Your task to perform on an android device: open the mobile data screen to see how much data has been used Image 0: 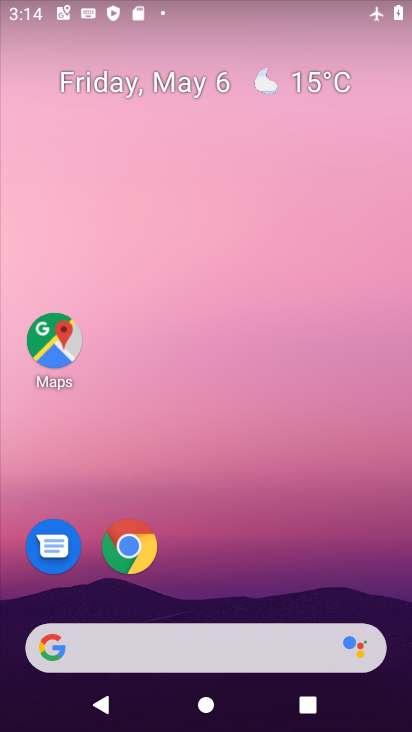
Step 0: drag from (317, 552) to (309, 118)
Your task to perform on an android device: open the mobile data screen to see how much data has been used Image 1: 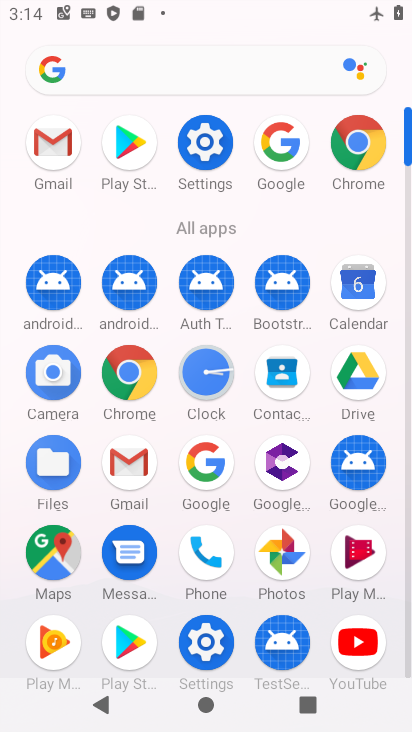
Step 1: click (217, 138)
Your task to perform on an android device: open the mobile data screen to see how much data has been used Image 2: 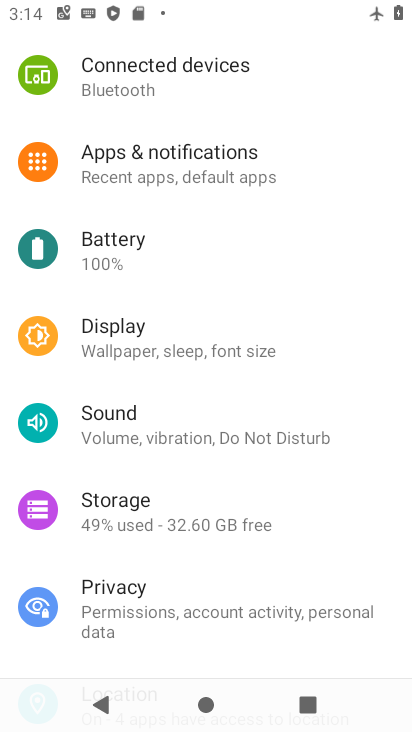
Step 2: drag from (199, 83) to (179, 520)
Your task to perform on an android device: open the mobile data screen to see how much data has been used Image 3: 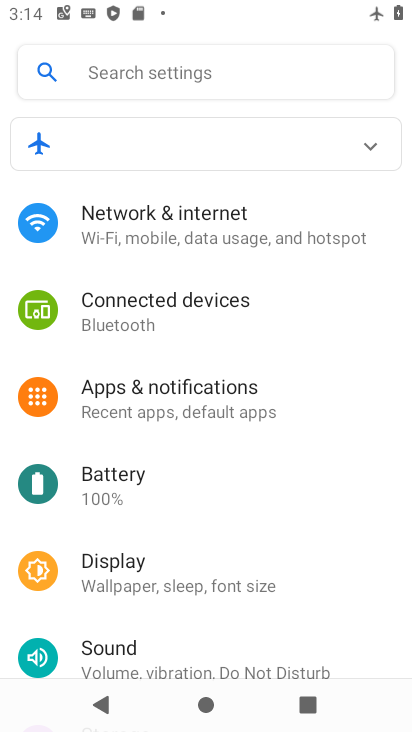
Step 3: click (170, 244)
Your task to perform on an android device: open the mobile data screen to see how much data has been used Image 4: 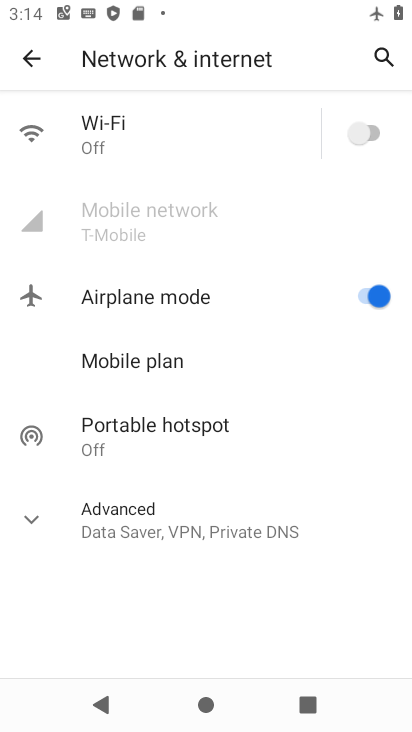
Step 4: click (162, 228)
Your task to perform on an android device: open the mobile data screen to see how much data has been used Image 5: 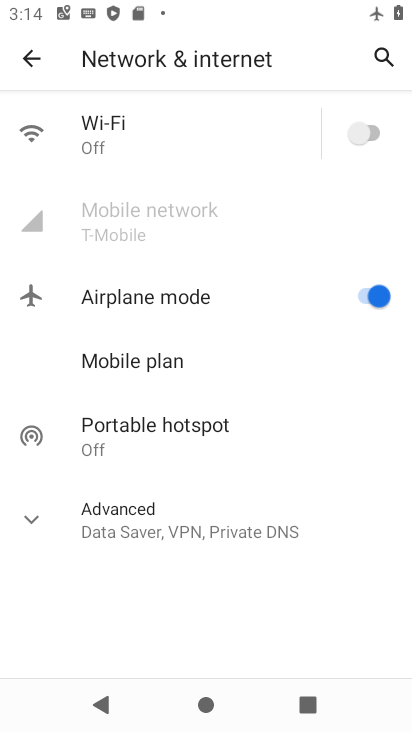
Step 5: click (162, 228)
Your task to perform on an android device: open the mobile data screen to see how much data has been used Image 6: 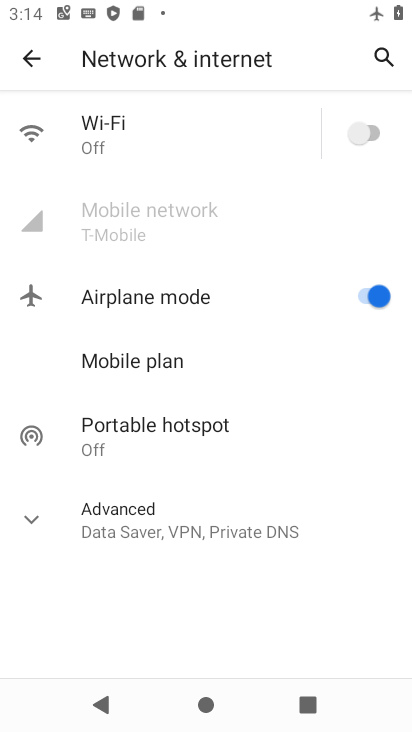
Step 6: task complete